Your task to perform on an android device: Search for pizza restaurants on Maps Image 0: 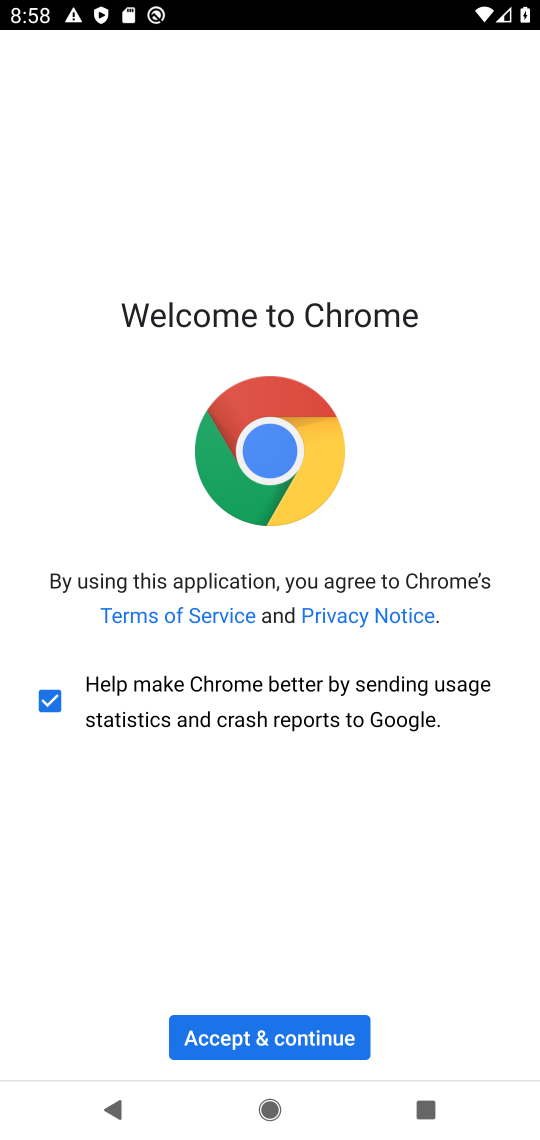
Step 0: press home button
Your task to perform on an android device: Search for pizza restaurants on Maps Image 1: 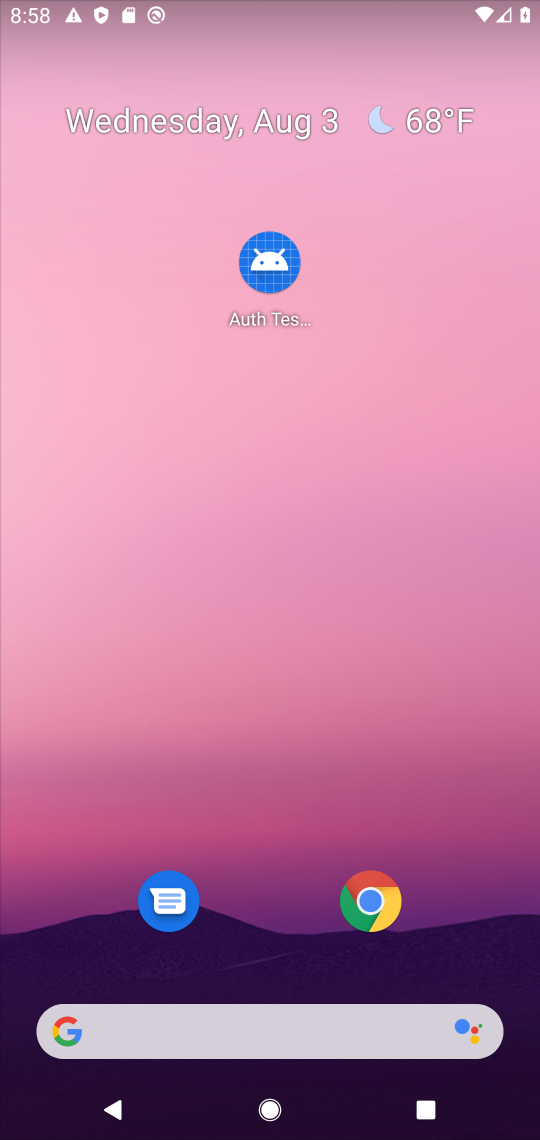
Step 1: drag from (512, 963) to (487, 131)
Your task to perform on an android device: Search for pizza restaurants on Maps Image 2: 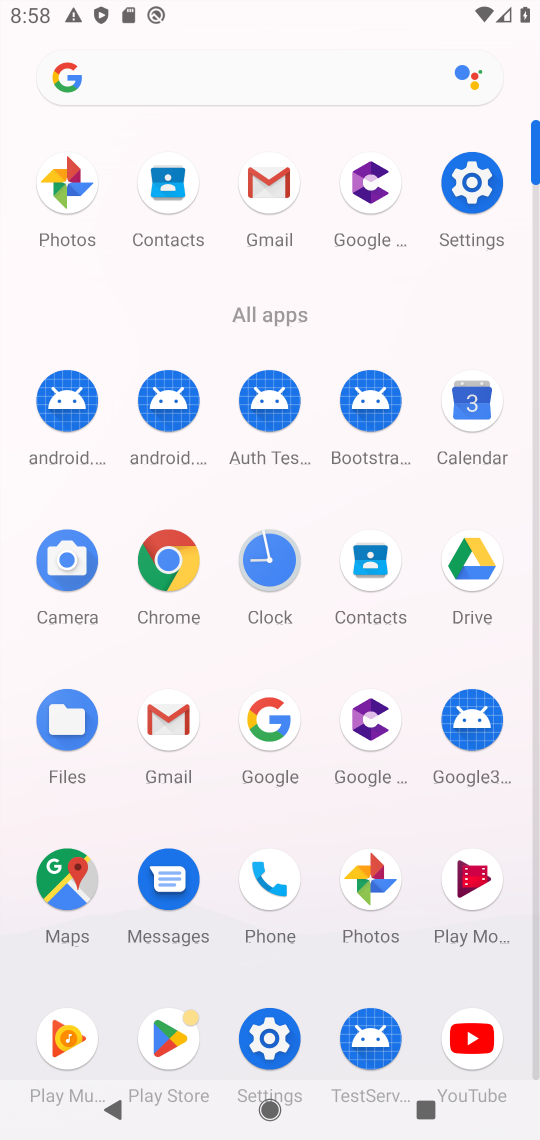
Step 2: click (67, 873)
Your task to perform on an android device: Search for pizza restaurants on Maps Image 3: 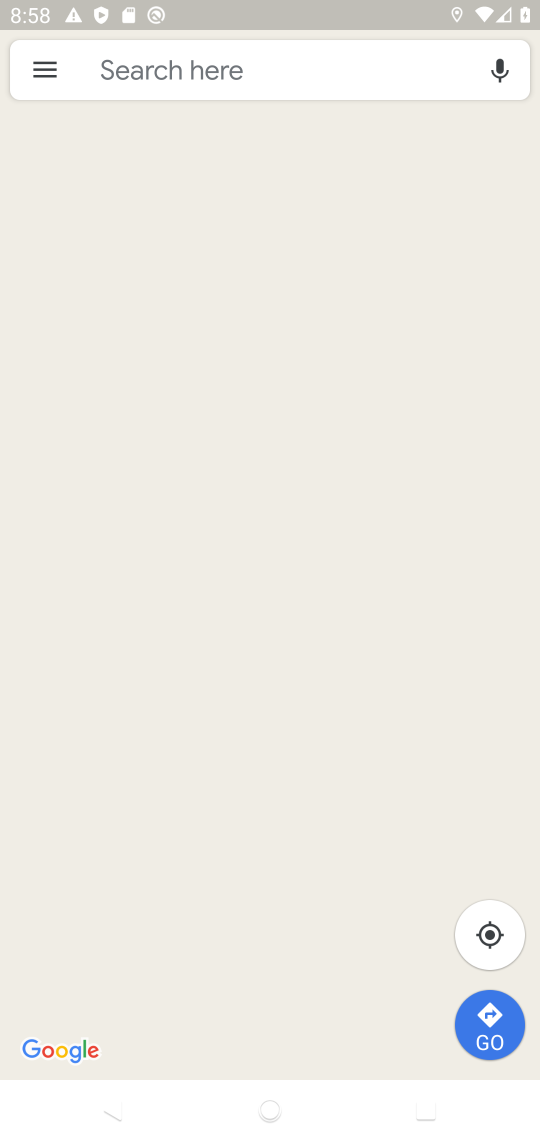
Step 3: click (226, 82)
Your task to perform on an android device: Search for pizza restaurants on Maps Image 4: 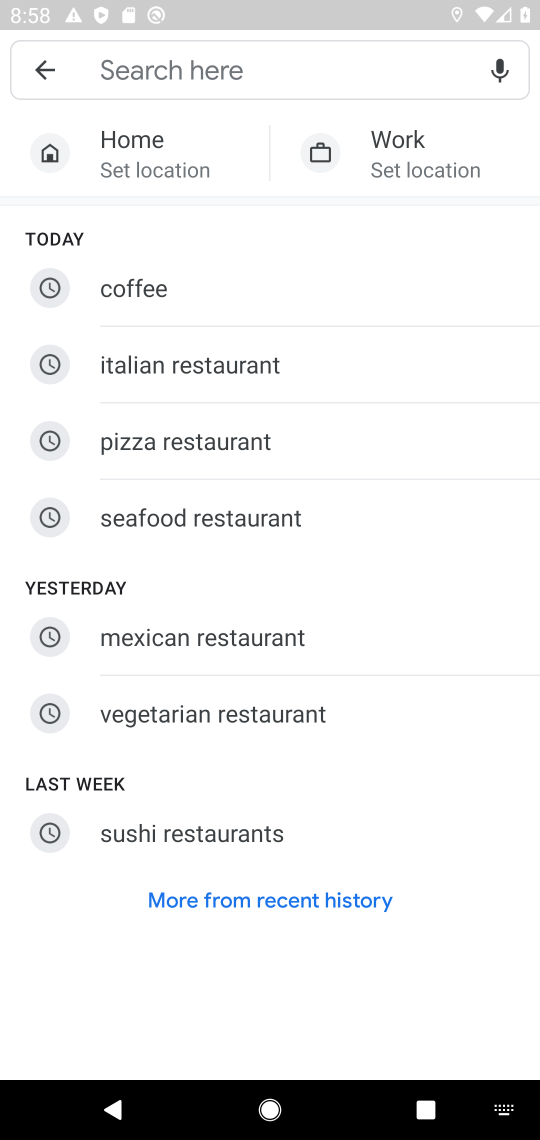
Step 4: click (200, 448)
Your task to perform on an android device: Search for pizza restaurants on Maps Image 5: 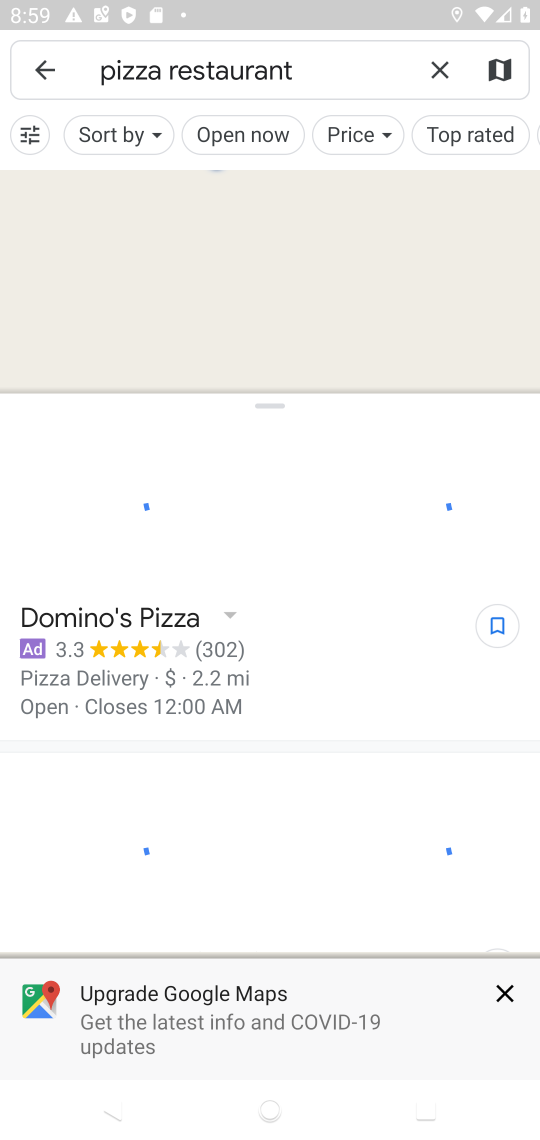
Step 5: task complete